Your task to perform on an android device: change the clock style Image 0: 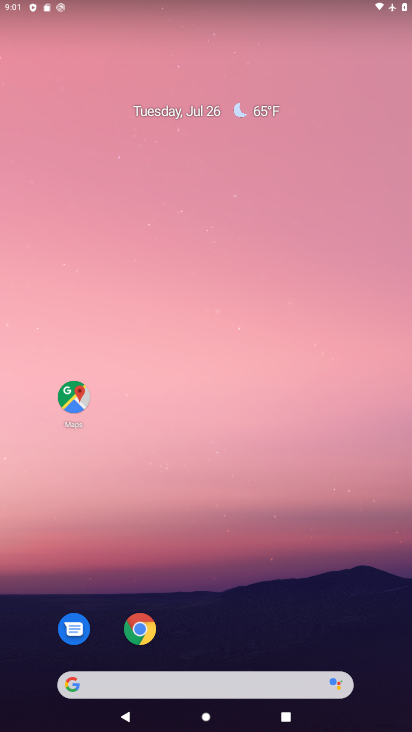
Step 0: drag from (354, 580) to (236, 67)
Your task to perform on an android device: change the clock style Image 1: 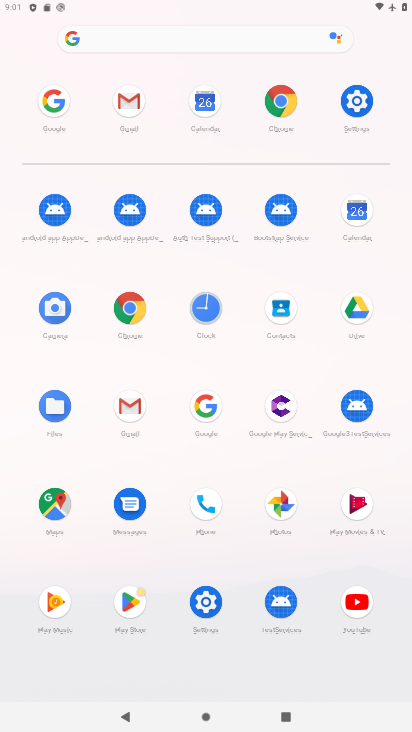
Step 1: click (205, 304)
Your task to perform on an android device: change the clock style Image 2: 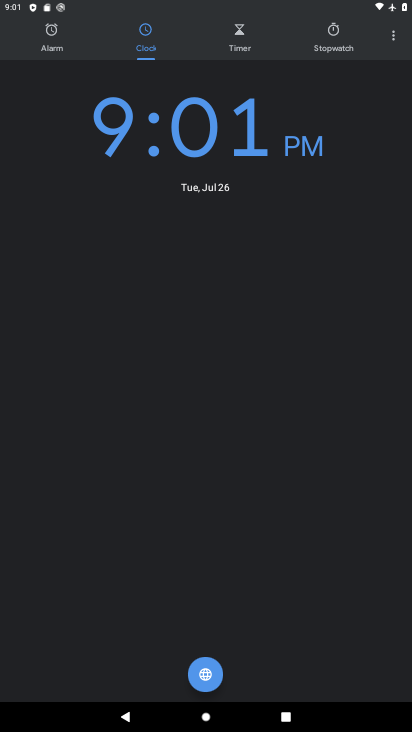
Step 2: click (391, 39)
Your task to perform on an android device: change the clock style Image 3: 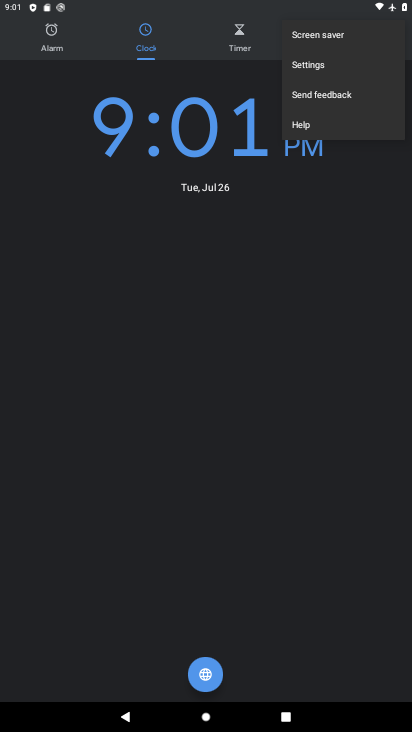
Step 3: click (343, 65)
Your task to perform on an android device: change the clock style Image 4: 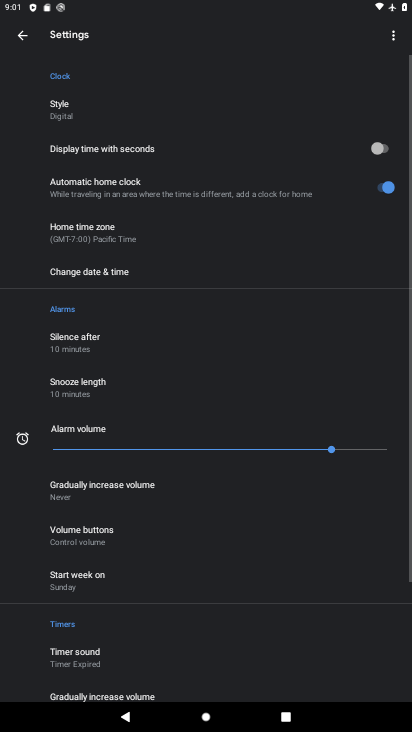
Step 4: click (69, 96)
Your task to perform on an android device: change the clock style Image 5: 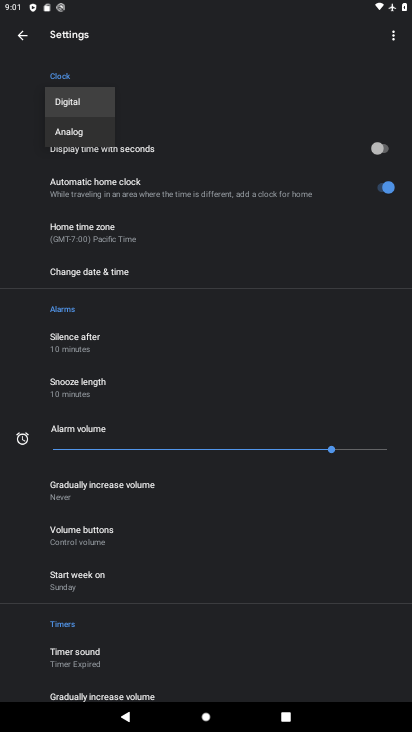
Step 5: click (85, 134)
Your task to perform on an android device: change the clock style Image 6: 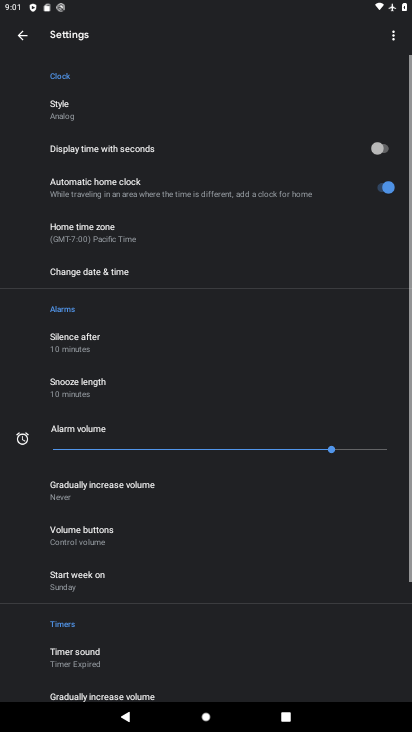
Step 6: task complete